Your task to perform on an android device: check out phone information Image 0: 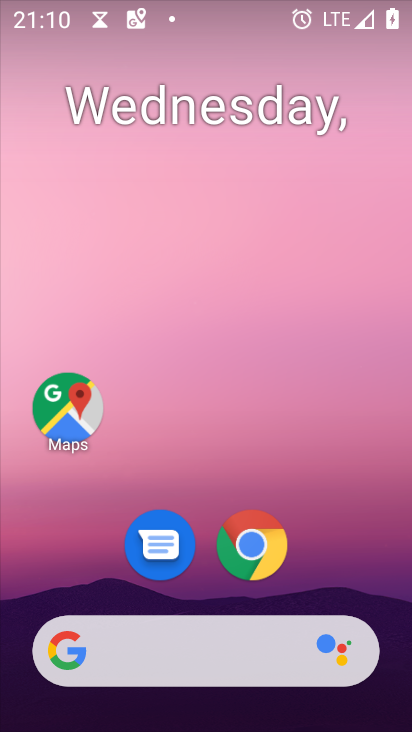
Step 0: press home button
Your task to perform on an android device: check out phone information Image 1: 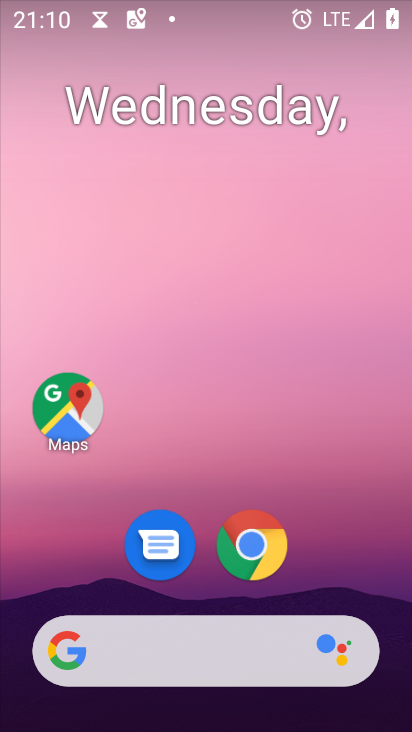
Step 1: drag from (216, 677) to (359, 151)
Your task to perform on an android device: check out phone information Image 2: 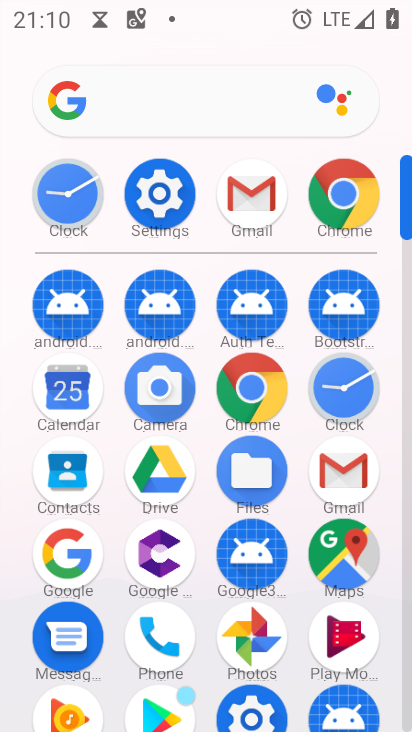
Step 2: click (164, 210)
Your task to perform on an android device: check out phone information Image 3: 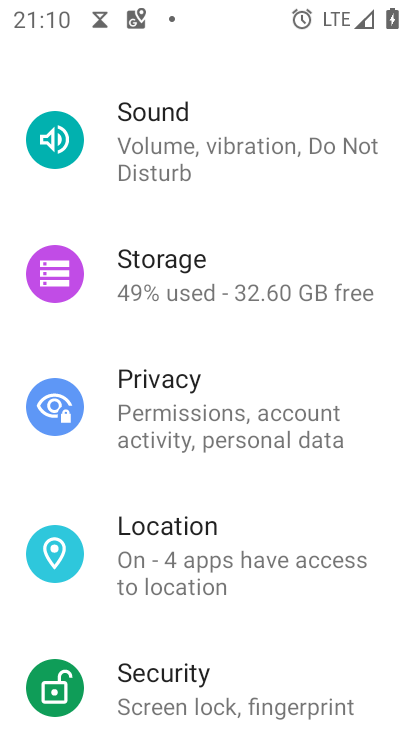
Step 3: drag from (277, 647) to (355, 146)
Your task to perform on an android device: check out phone information Image 4: 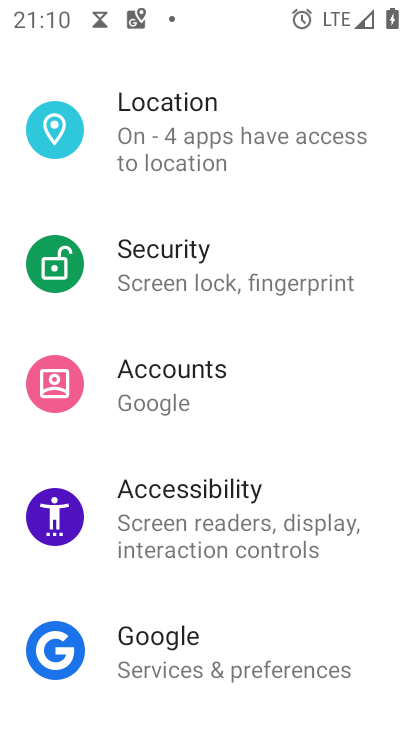
Step 4: drag from (291, 401) to (345, 113)
Your task to perform on an android device: check out phone information Image 5: 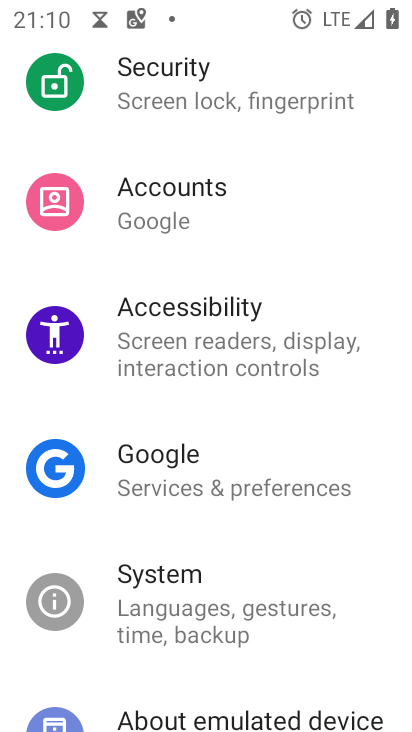
Step 5: drag from (258, 627) to (317, 198)
Your task to perform on an android device: check out phone information Image 6: 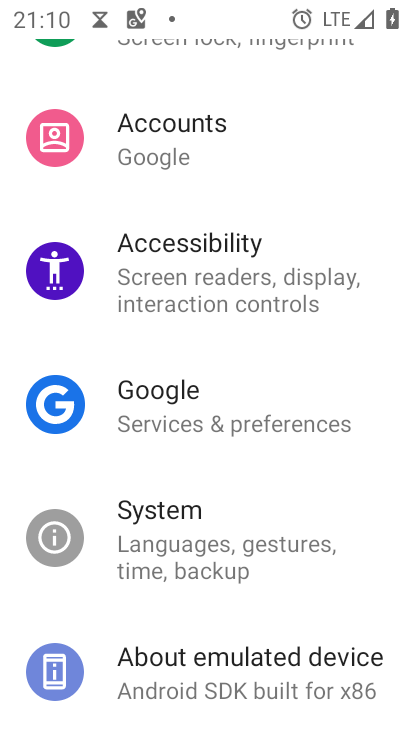
Step 6: click (225, 673)
Your task to perform on an android device: check out phone information Image 7: 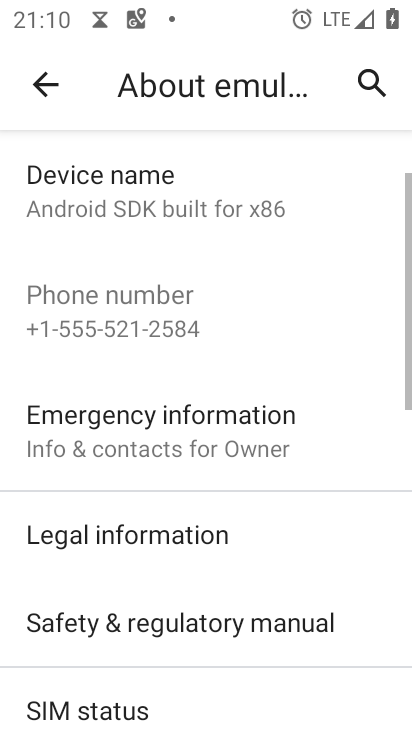
Step 7: task complete